Your task to perform on an android device: open a new tab in the chrome app Image 0: 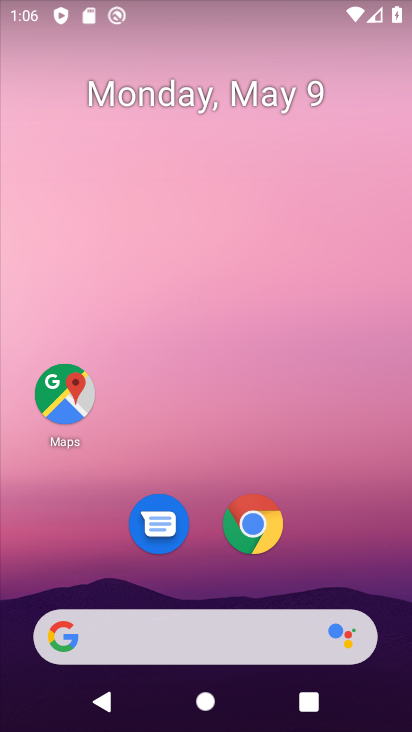
Step 0: click (255, 518)
Your task to perform on an android device: open a new tab in the chrome app Image 1: 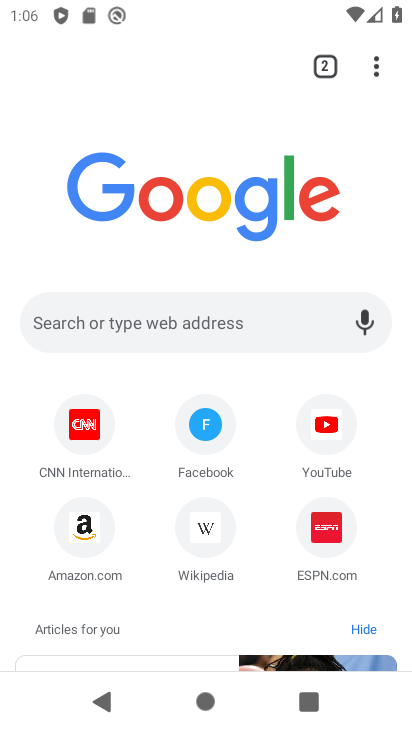
Step 1: click (372, 68)
Your task to perform on an android device: open a new tab in the chrome app Image 2: 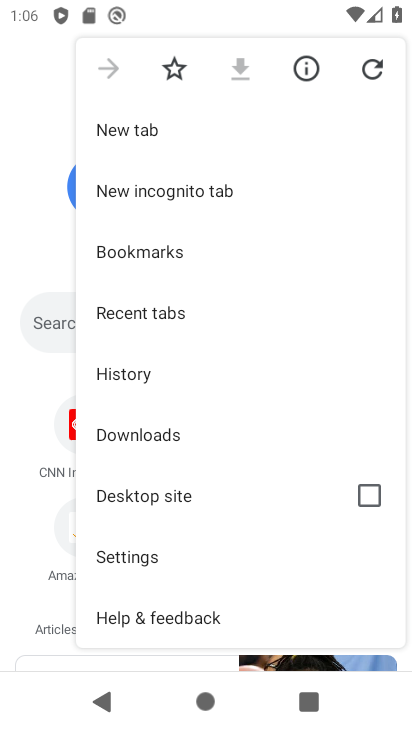
Step 2: click (286, 128)
Your task to perform on an android device: open a new tab in the chrome app Image 3: 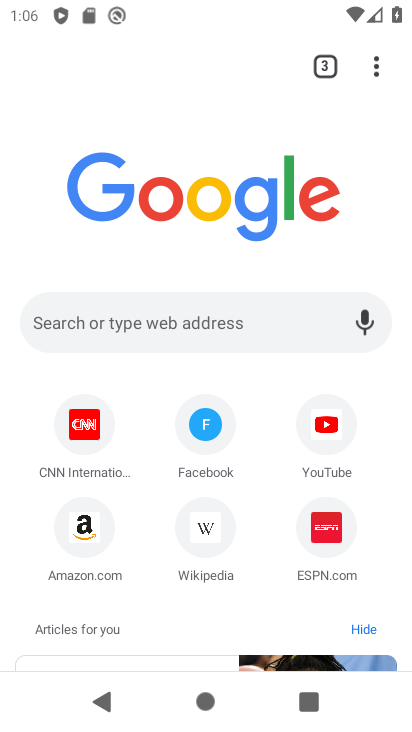
Step 3: task complete